Your task to perform on an android device: make emails show in primary in the gmail app Image 0: 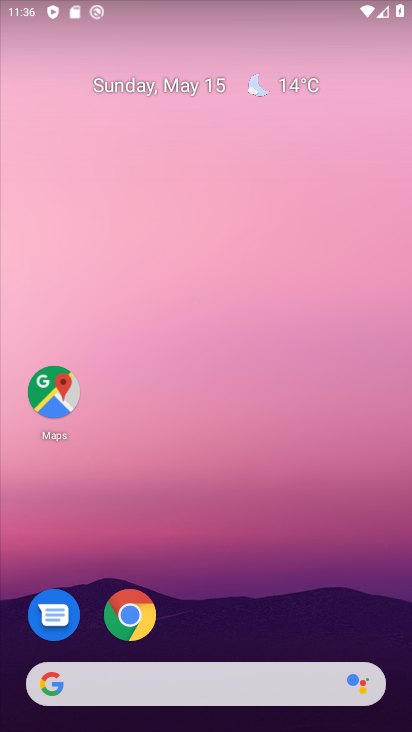
Step 0: drag from (276, 591) to (316, 0)
Your task to perform on an android device: make emails show in primary in the gmail app Image 1: 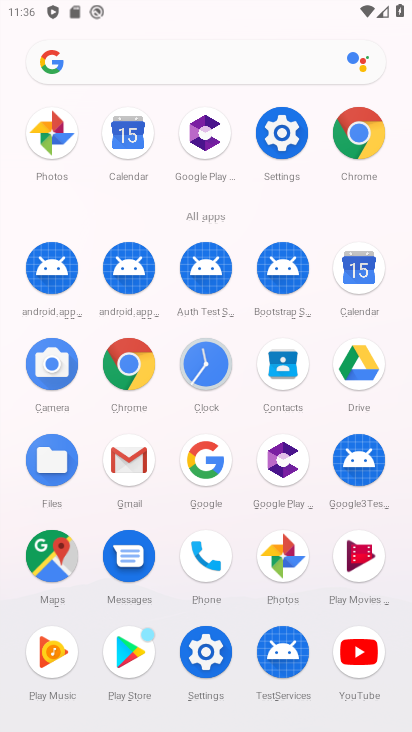
Step 1: click (134, 457)
Your task to perform on an android device: make emails show in primary in the gmail app Image 2: 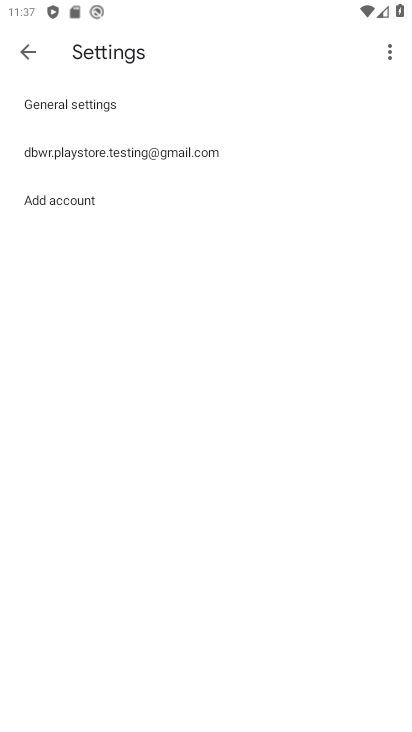
Step 2: click (97, 149)
Your task to perform on an android device: make emails show in primary in the gmail app Image 3: 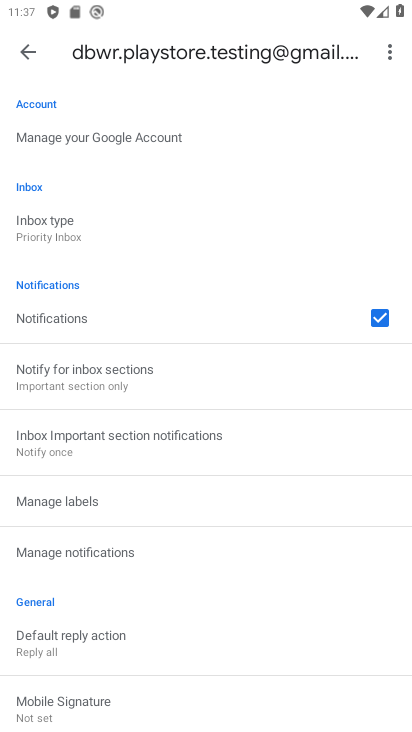
Step 3: click (69, 232)
Your task to perform on an android device: make emails show in primary in the gmail app Image 4: 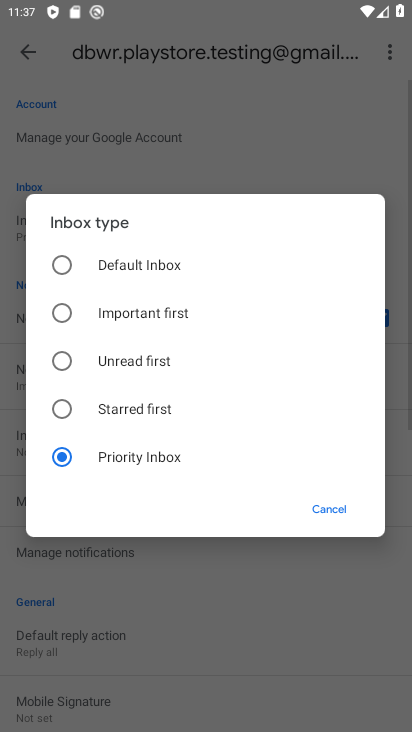
Step 4: click (86, 258)
Your task to perform on an android device: make emails show in primary in the gmail app Image 5: 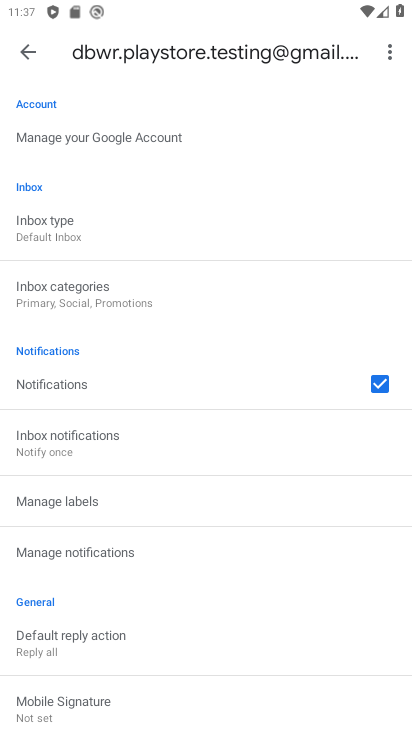
Step 5: task complete